Your task to perform on an android device: open sync settings in chrome Image 0: 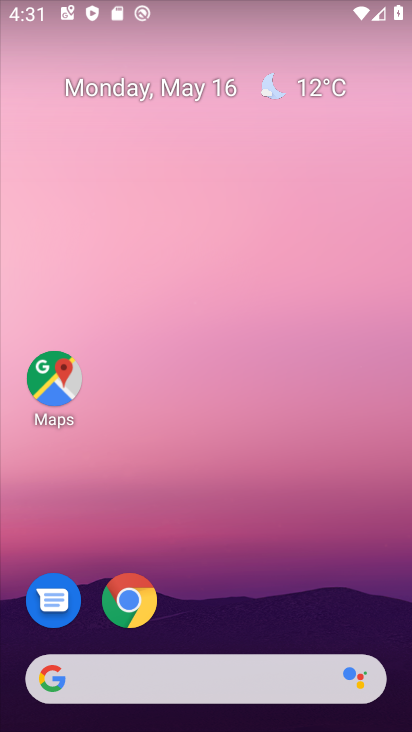
Step 0: click (139, 597)
Your task to perform on an android device: open sync settings in chrome Image 1: 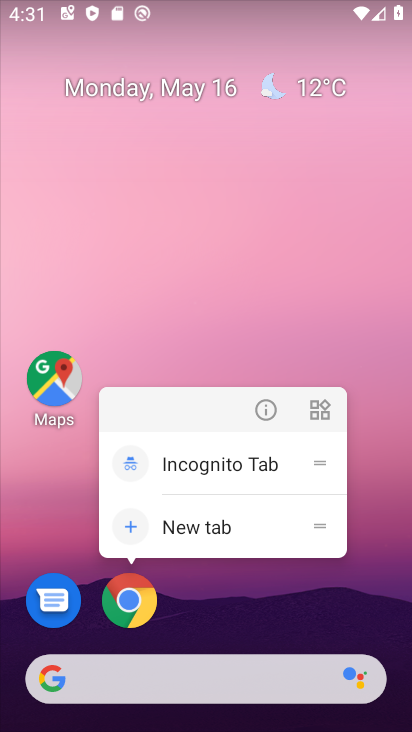
Step 1: click (135, 608)
Your task to perform on an android device: open sync settings in chrome Image 2: 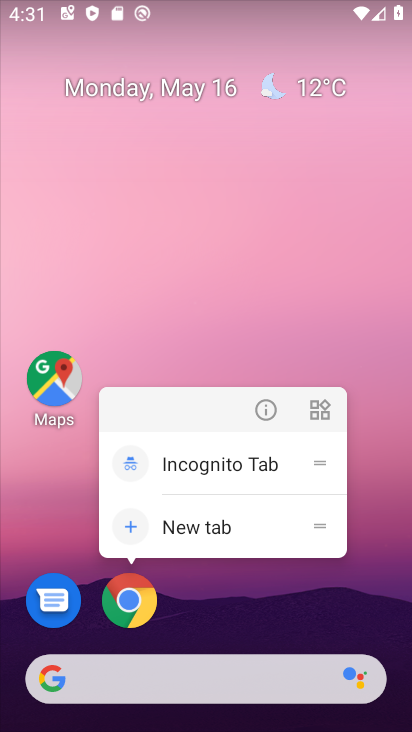
Step 2: click (132, 599)
Your task to perform on an android device: open sync settings in chrome Image 3: 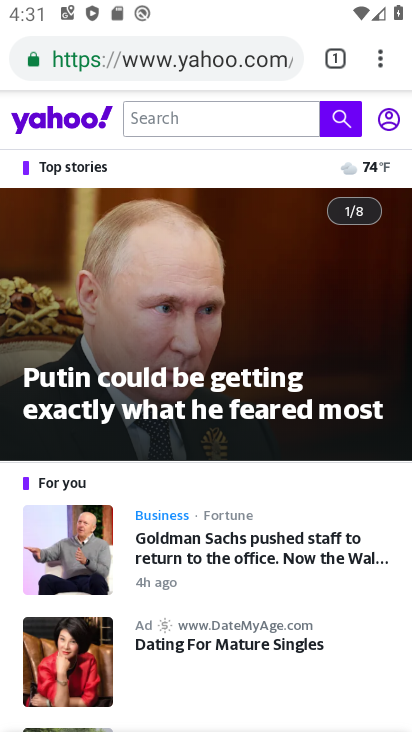
Step 3: click (387, 55)
Your task to perform on an android device: open sync settings in chrome Image 4: 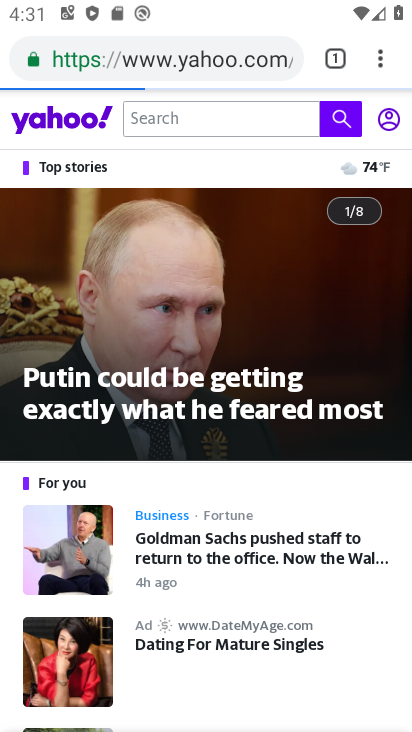
Step 4: click (372, 46)
Your task to perform on an android device: open sync settings in chrome Image 5: 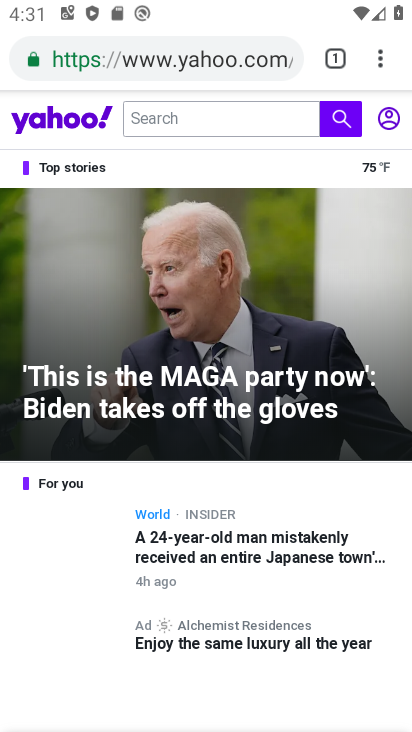
Step 5: click (375, 57)
Your task to perform on an android device: open sync settings in chrome Image 6: 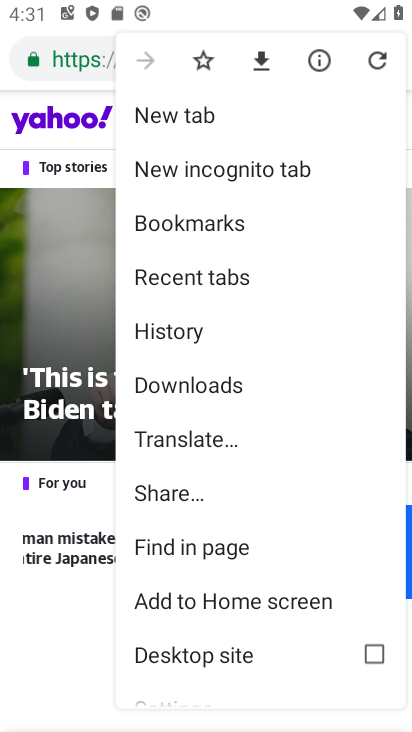
Step 6: drag from (231, 514) to (281, 224)
Your task to perform on an android device: open sync settings in chrome Image 7: 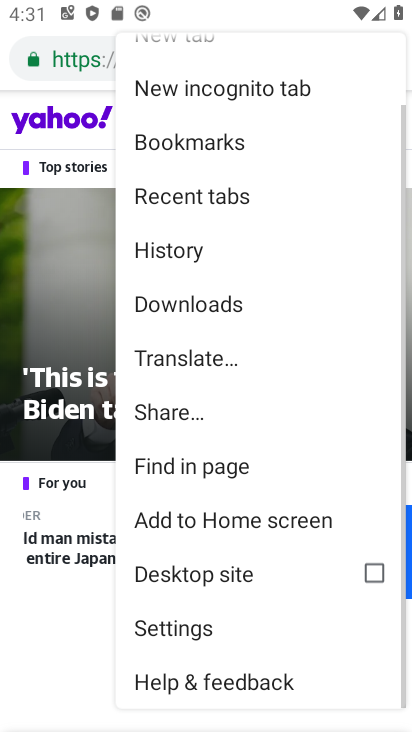
Step 7: click (198, 625)
Your task to perform on an android device: open sync settings in chrome Image 8: 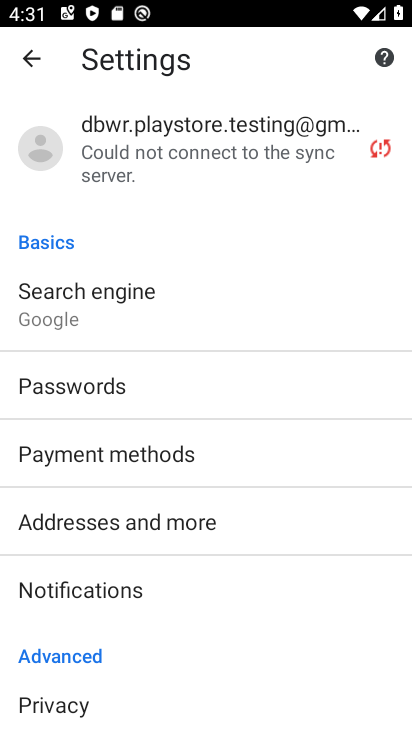
Step 8: click (291, 143)
Your task to perform on an android device: open sync settings in chrome Image 9: 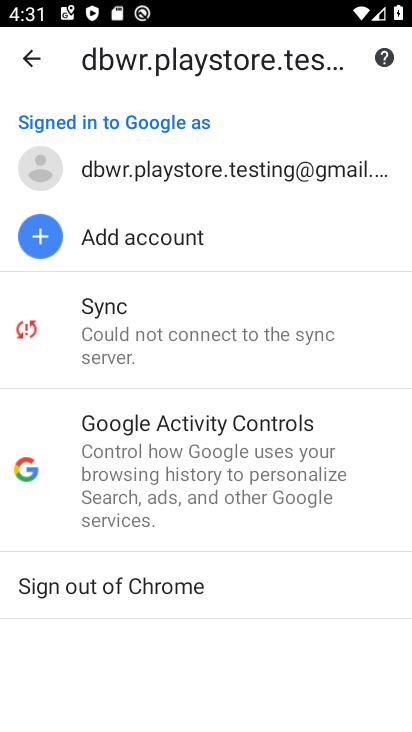
Step 9: click (206, 354)
Your task to perform on an android device: open sync settings in chrome Image 10: 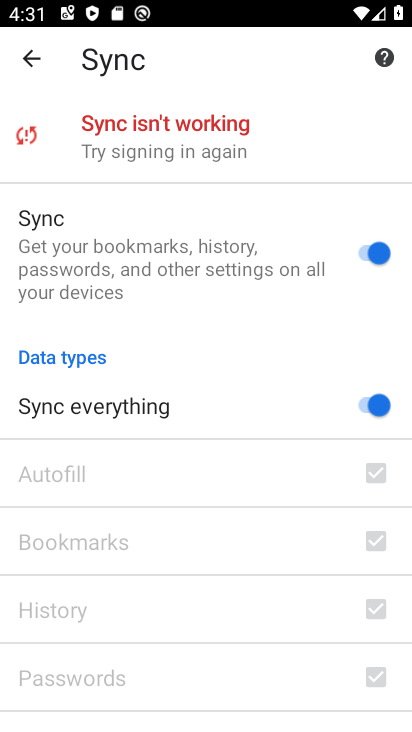
Step 10: task complete